Your task to perform on an android device: Show the shopping cart on amazon.com. Add "macbook pro" to the cart on amazon.com Image 0: 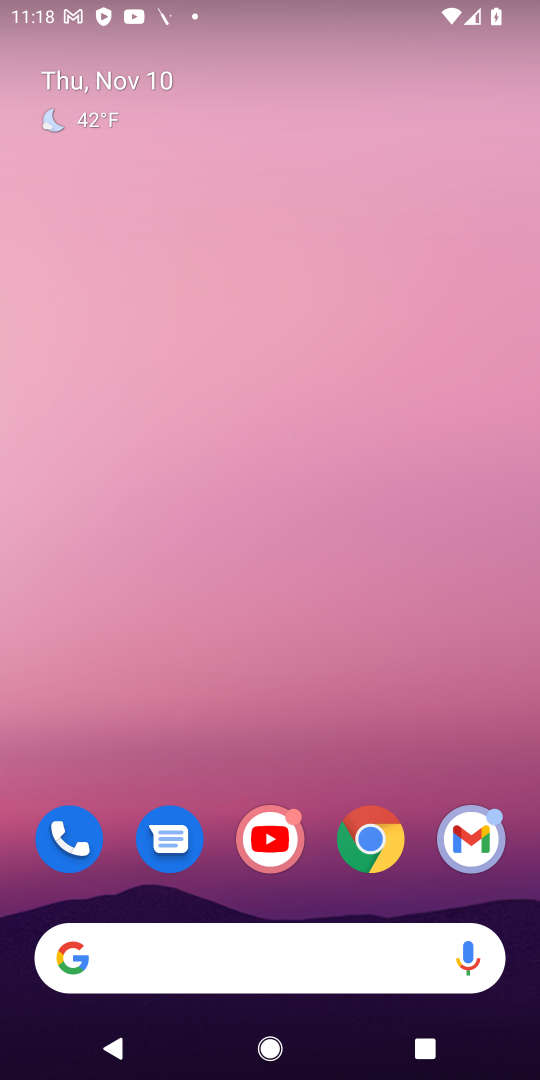
Step 0: click (373, 832)
Your task to perform on an android device: Show the shopping cart on amazon.com. Add "macbook pro" to the cart on amazon.com Image 1: 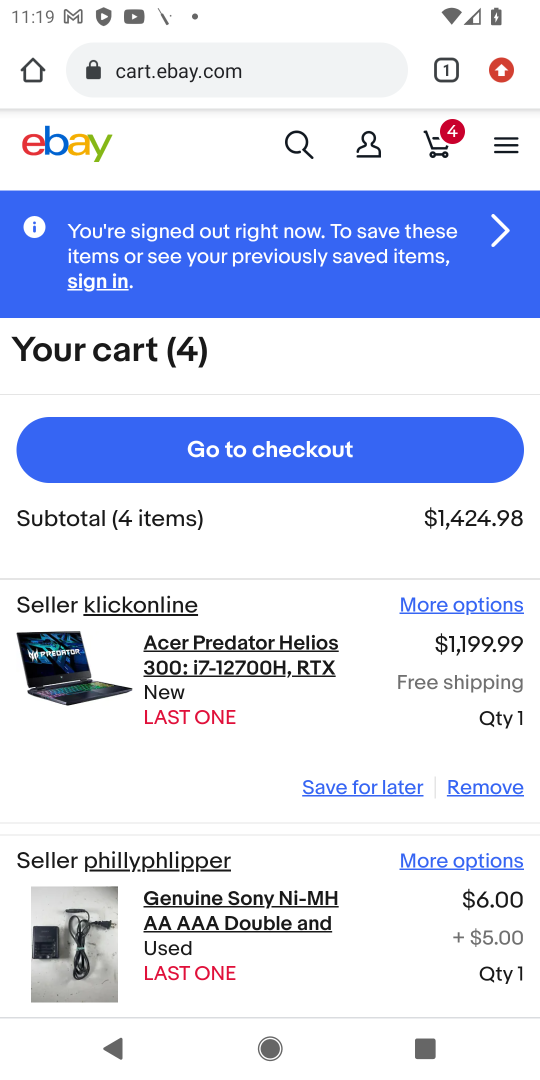
Step 1: click (360, 72)
Your task to perform on an android device: Show the shopping cart on amazon.com. Add "macbook pro" to the cart on amazon.com Image 2: 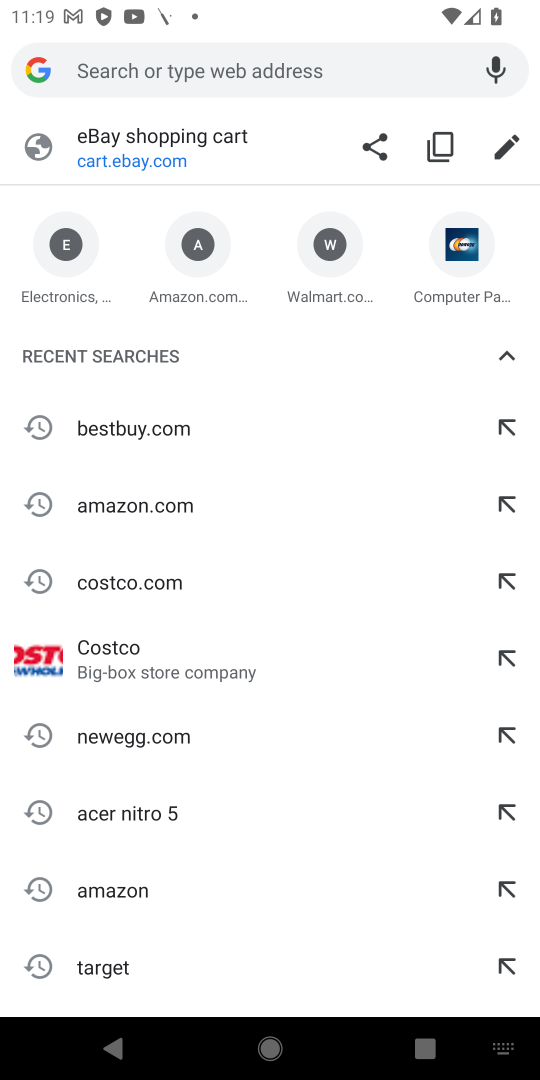
Step 2: click (147, 495)
Your task to perform on an android device: Show the shopping cart on amazon.com. Add "macbook pro" to the cart on amazon.com Image 3: 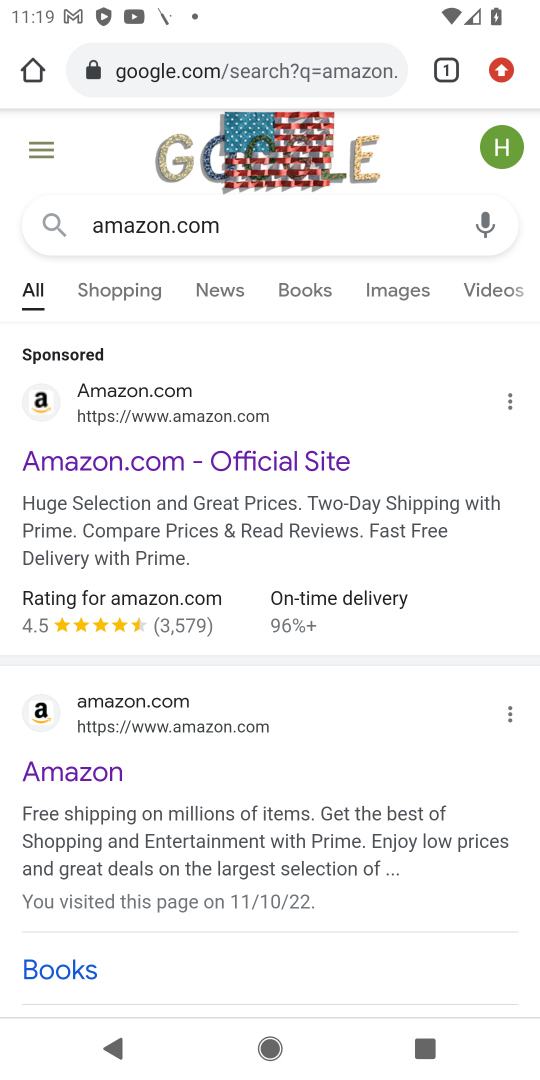
Step 3: click (186, 407)
Your task to perform on an android device: Show the shopping cart on amazon.com. Add "macbook pro" to the cart on amazon.com Image 4: 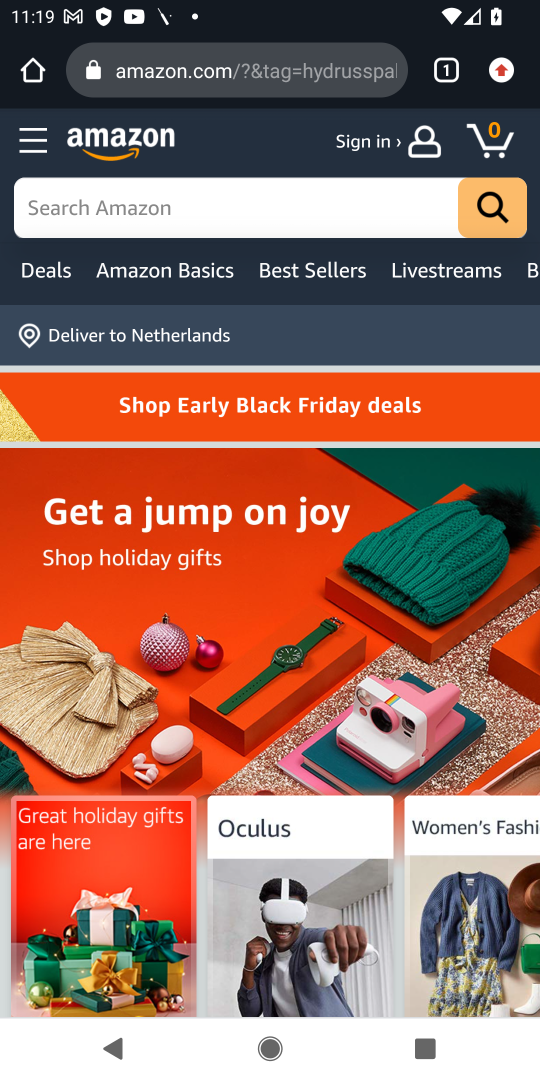
Step 4: click (282, 213)
Your task to perform on an android device: Show the shopping cart on amazon.com. Add "macbook pro" to the cart on amazon.com Image 5: 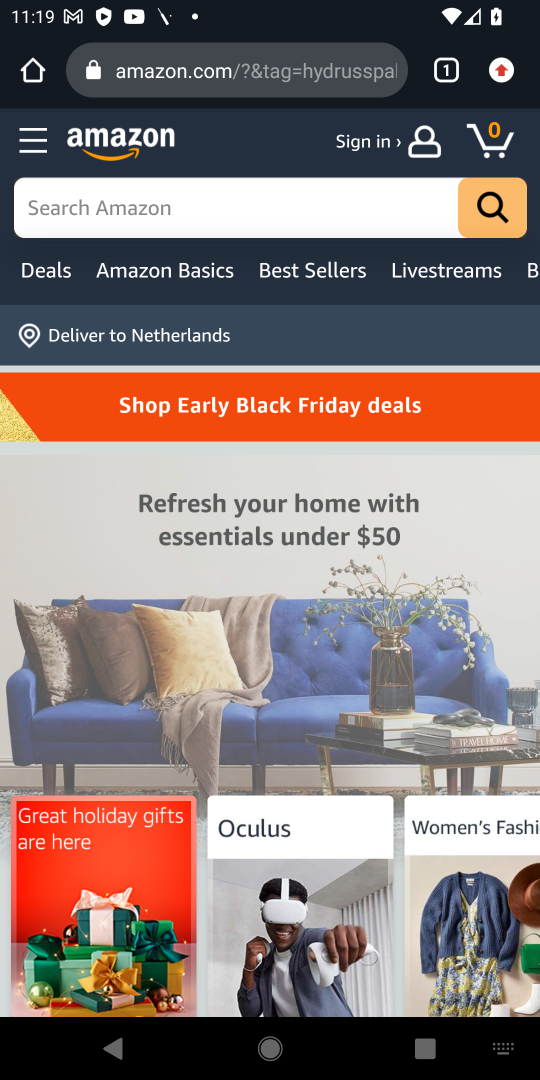
Step 5: press enter
Your task to perform on an android device: Show the shopping cart on amazon.com. Add "macbook pro" to the cart on amazon.com Image 6: 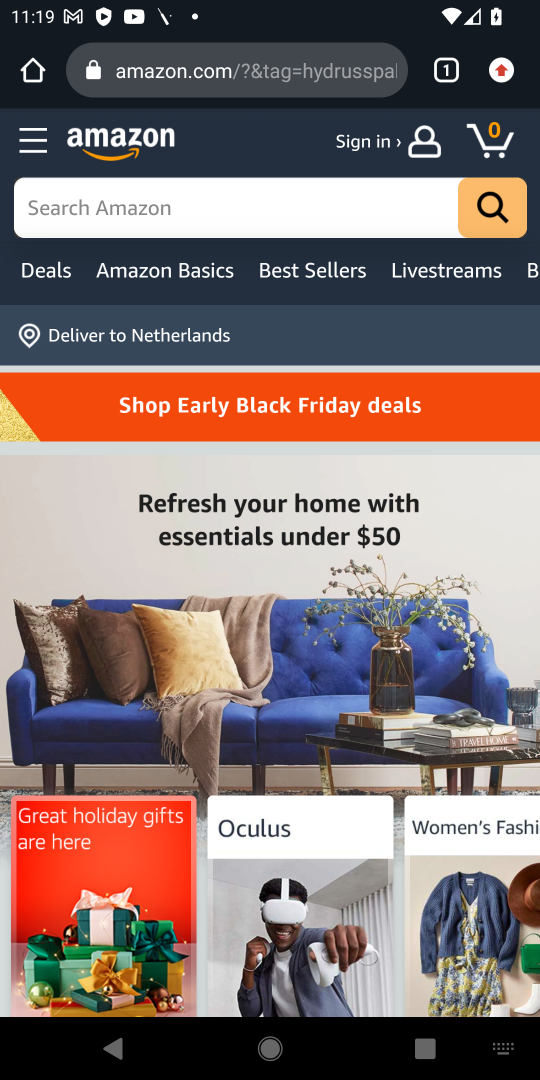
Step 6: type "macbook pro"
Your task to perform on an android device: Show the shopping cart on amazon.com. Add "macbook pro" to the cart on amazon.com Image 7: 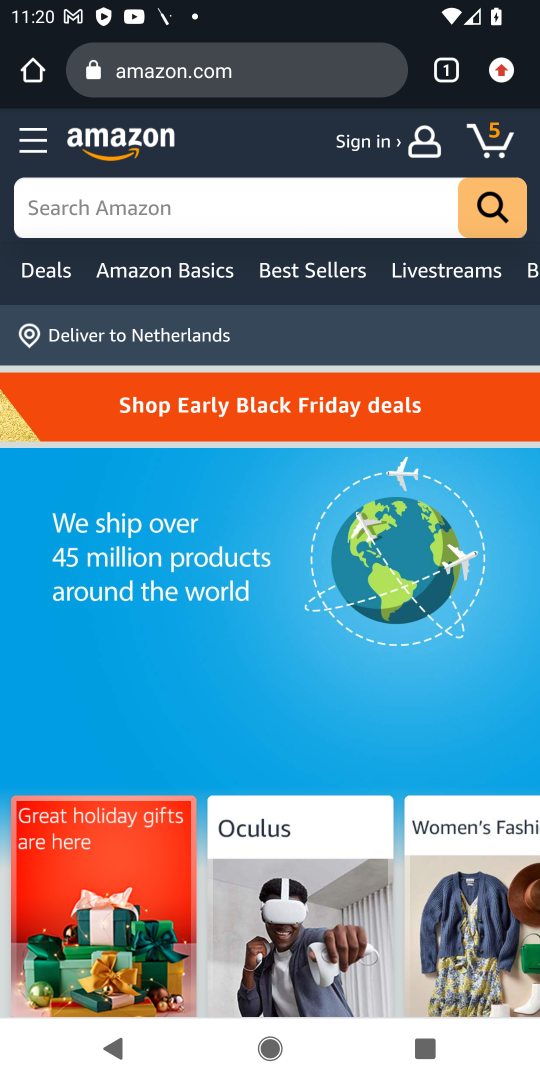
Step 7: click (287, 203)
Your task to perform on an android device: Show the shopping cart on amazon.com. Add "macbook pro" to the cart on amazon.com Image 8: 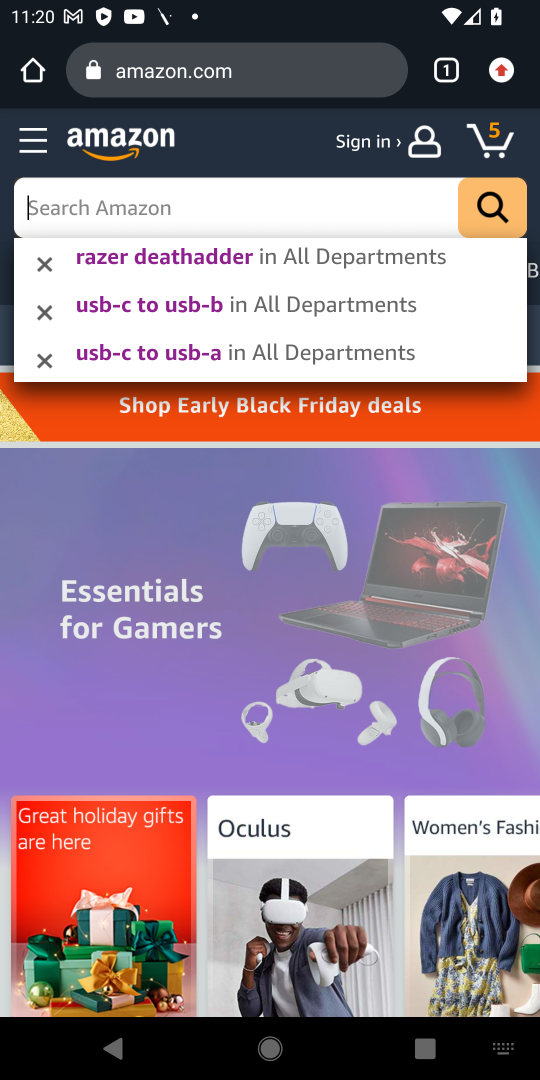
Step 8: type "macbook pro"
Your task to perform on an android device: Show the shopping cart on amazon.com. Add "macbook pro" to the cart on amazon.com Image 9: 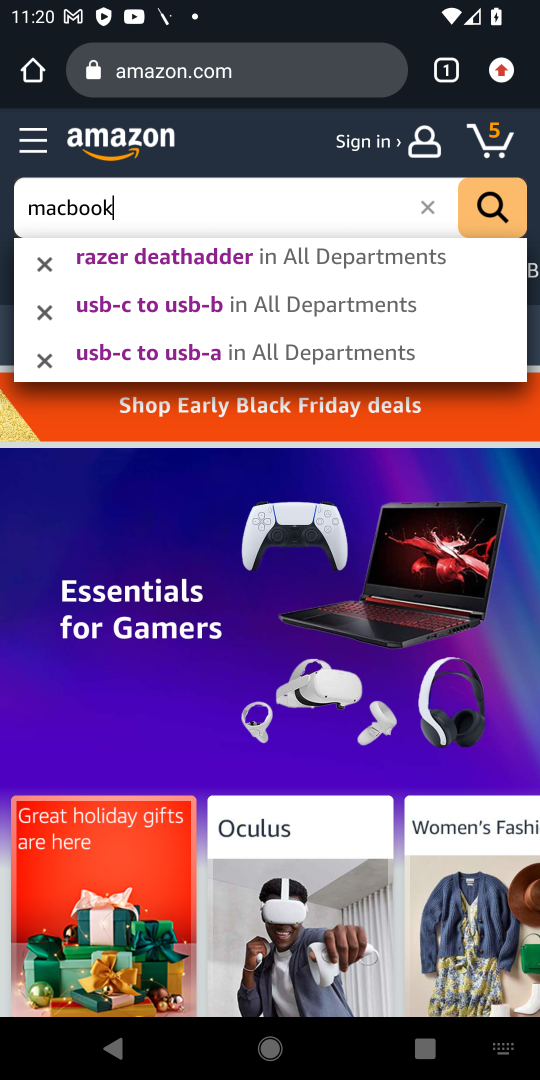
Step 9: press enter
Your task to perform on an android device: Show the shopping cart on amazon.com. Add "macbook pro" to the cart on amazon.com Image 10: 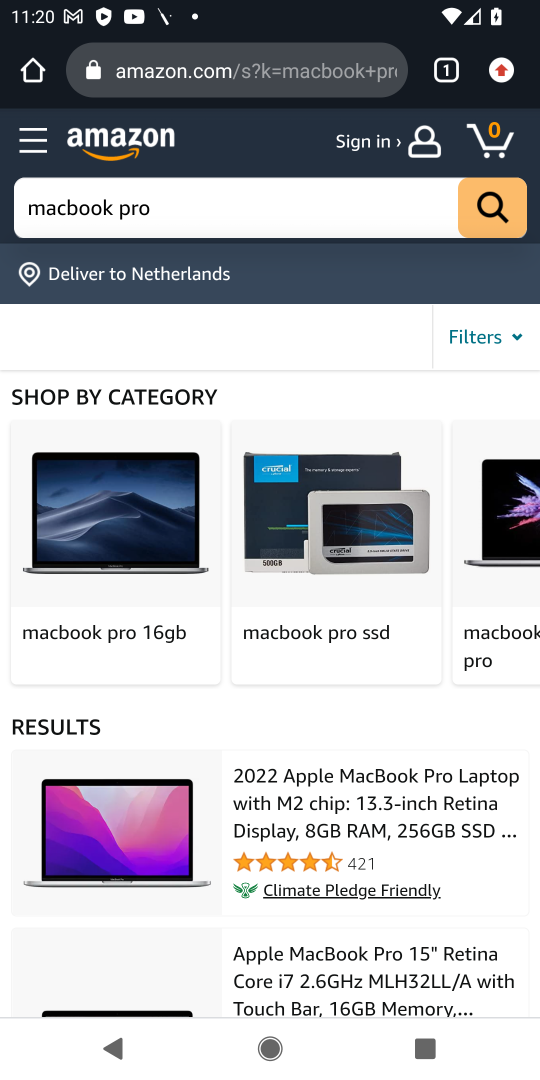
Step 10: drag from (433, 768) to (450, 683)
Your task to perform on an android device: Show the shopping cart on amazon.com. Add "macbook pro" to the cart on amazon.com Image 11: 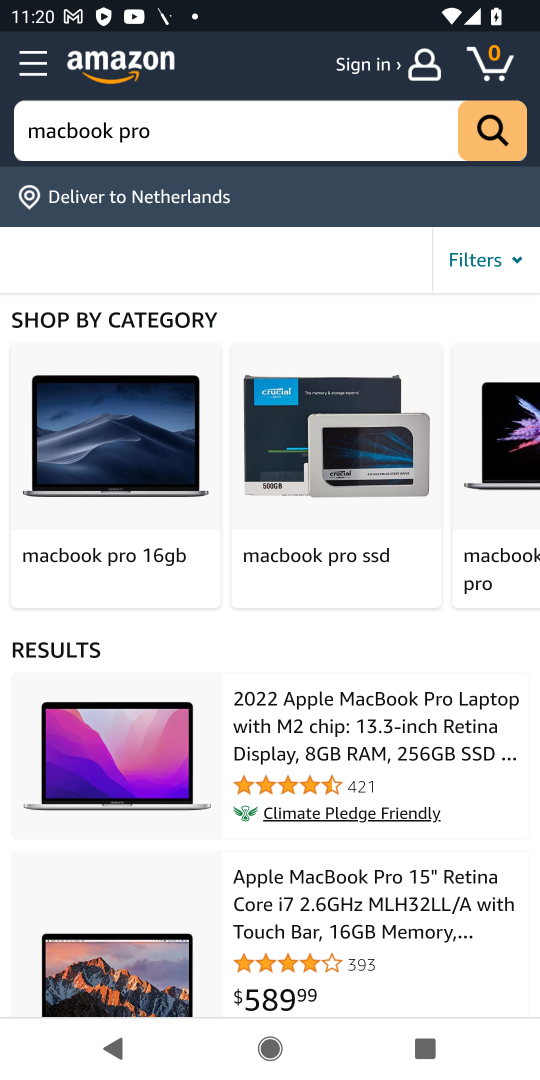
Step 11: click (134, 748)
Your task to perform on an android device: Show the shopping cart on amazon.com. Add "macbook pro" to the cart on amazon.com Image 12: 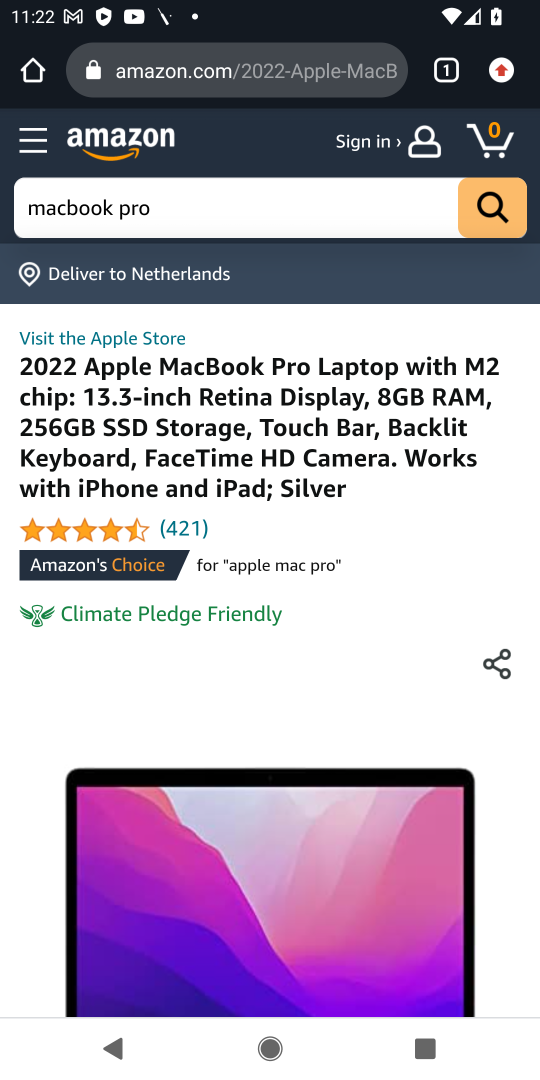
Step 12: drag from (462, 984) to (505, 312)
Your task to perform on an android device: Show the shopping cart on amazon.com. Add "macbook pro" to the cart on amazon.com Image 13: 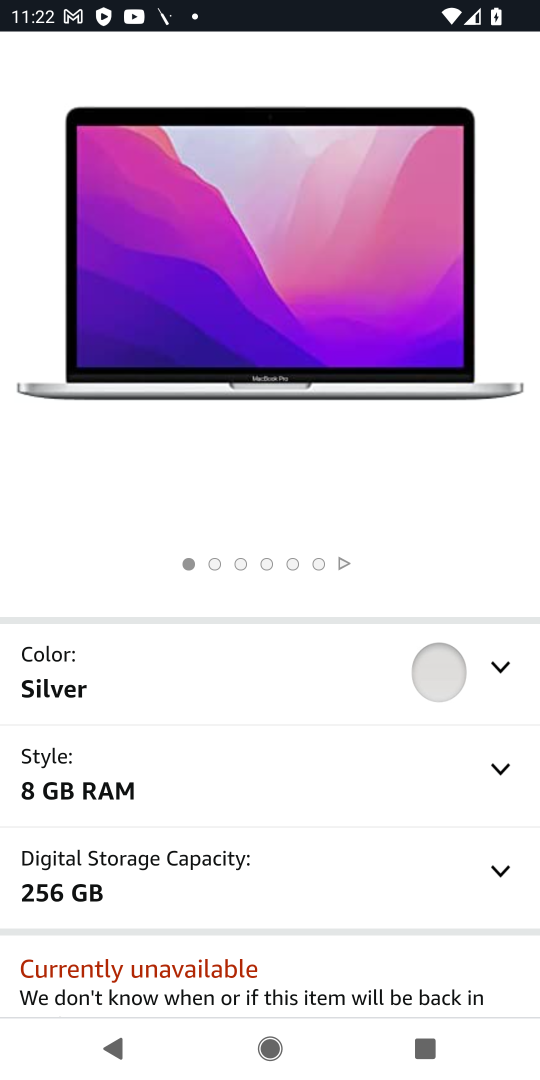
Step 13: drag from (416, 869) to (420, 718)
Your task to perform on an android device: Show the shopping cart on amazon.com. Add "macbook pro" to the cart on amazon.com Image 14: 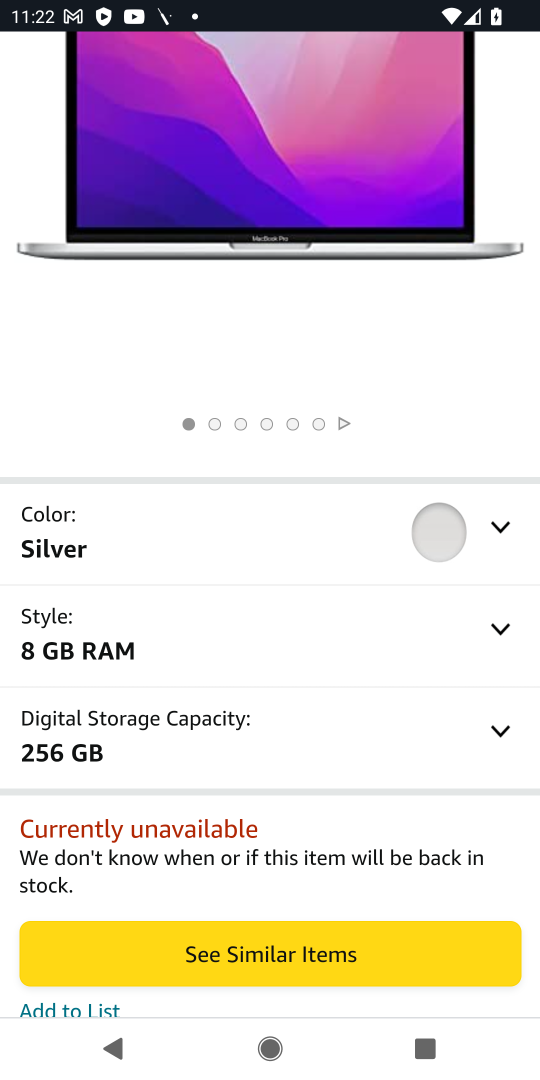
Step 14: press back button
Your task to perform on an android device: Show the shopping cart on amazon.com. Add "macbook pro" to the cart on amazon.com Image 15: 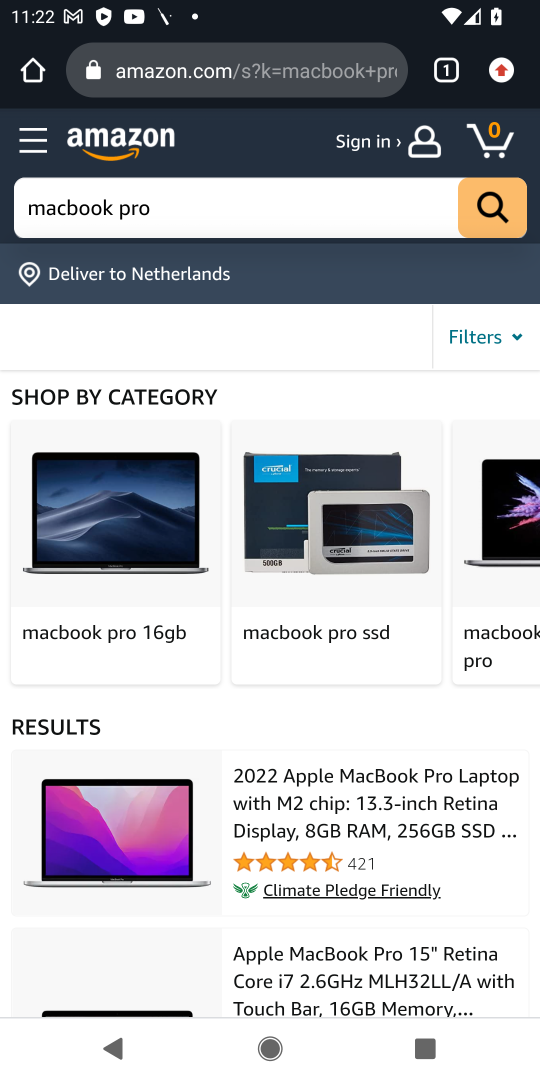
Step 15: drag from (474, 663) to (478, 503)
Your task to perform on an android device: Show the shopping cart on amazon.com. Add "macbook pro" to the cart on amazon.com Image 16: 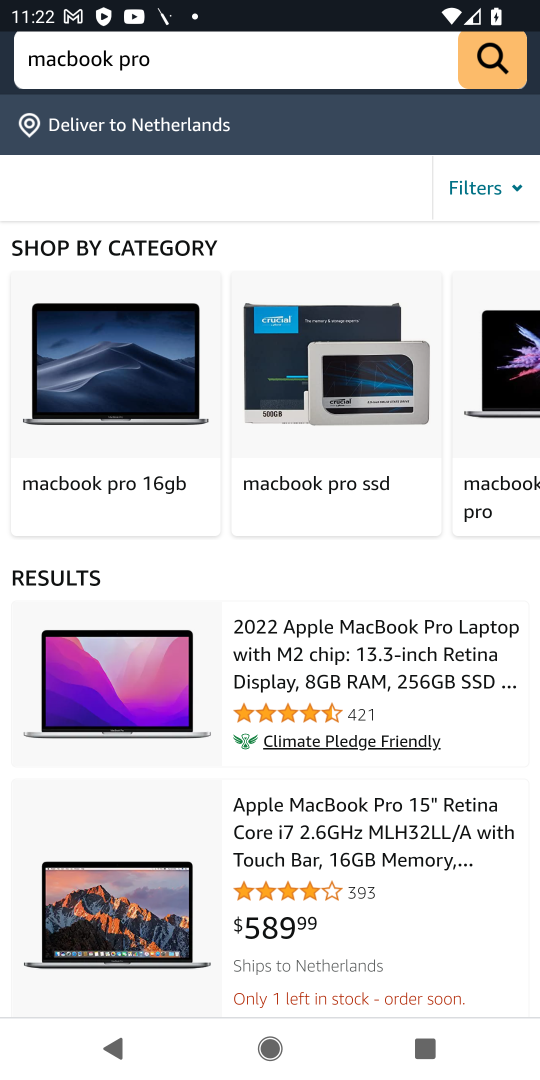
Step 16: click (130, 882)
Your task to perform on an android device: Show the shopping cart on amazon.com. Add "macbook pro" to the cart on amazon.com Image 17: 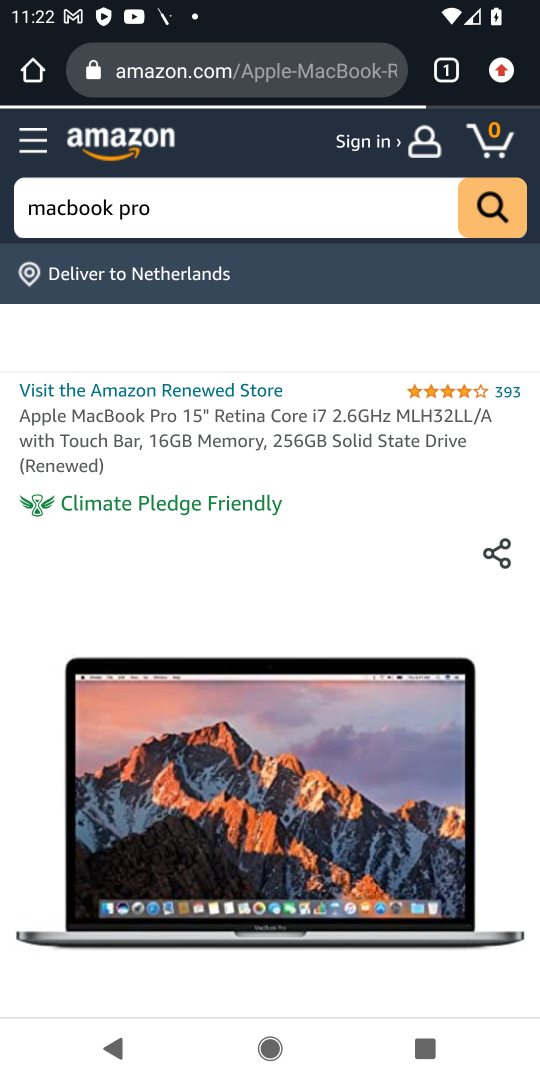
Step 17: drag from (504, 685) to (527, 343)
Your task to perform on an android device: Show the shopping cart on amazon.com. Add "macbook pro" to the cart on amazon.com Image 18: 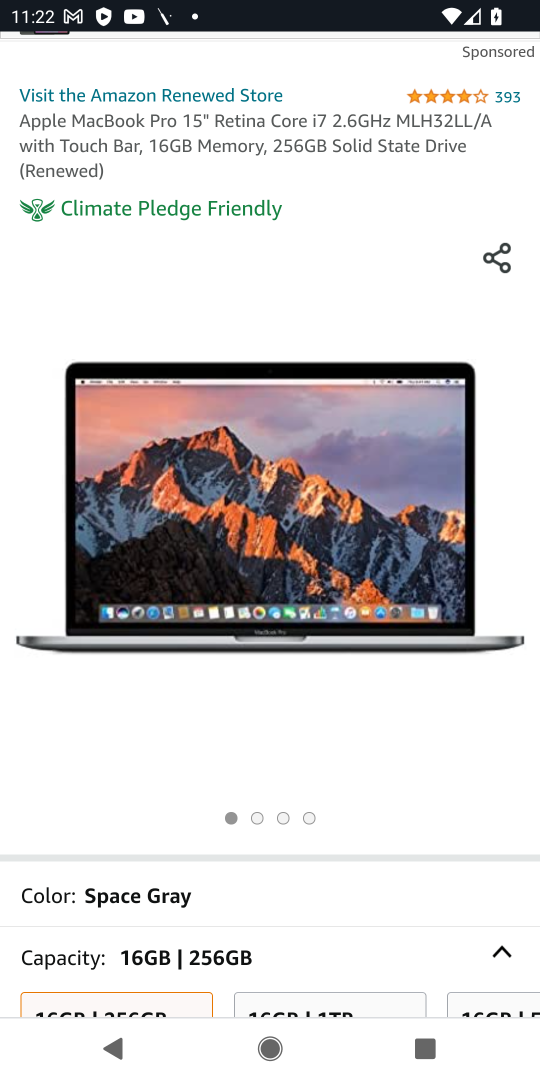
Step 18: drag from (464, 902) to (491, 430)
Your task to perform on an android device: Show the shopping cart on amazon.com. Add "macbook pro" to the cart on amazon.com Image 19: 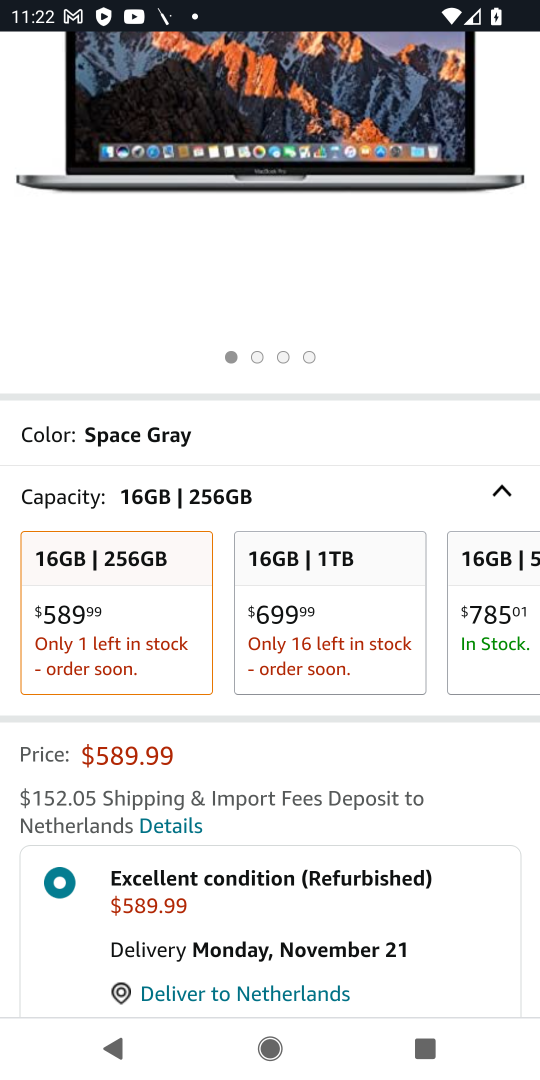
Step 19: drag from (472, 906) to (507, 369)
Your task to perform on an android device: Show the shopping cart on amazon.com. Add "macbook pro" to the cart on amazon.com Image 20: 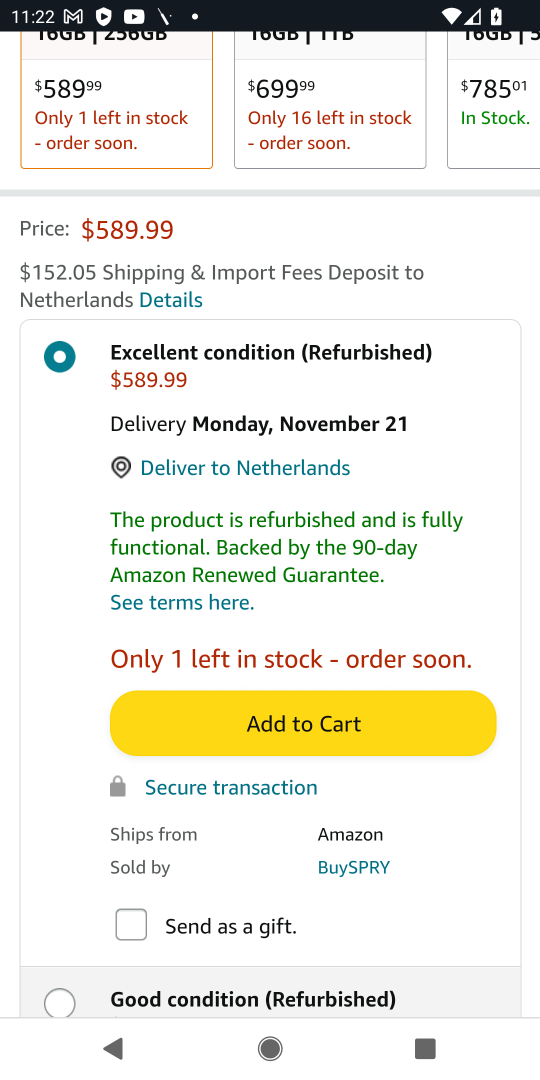
Step 20: click (361, 707)
Your task to perform on an android device: Show the shopping cart on amazon.com. Add "macbook pro" to the cart on amazon.com Image 21: 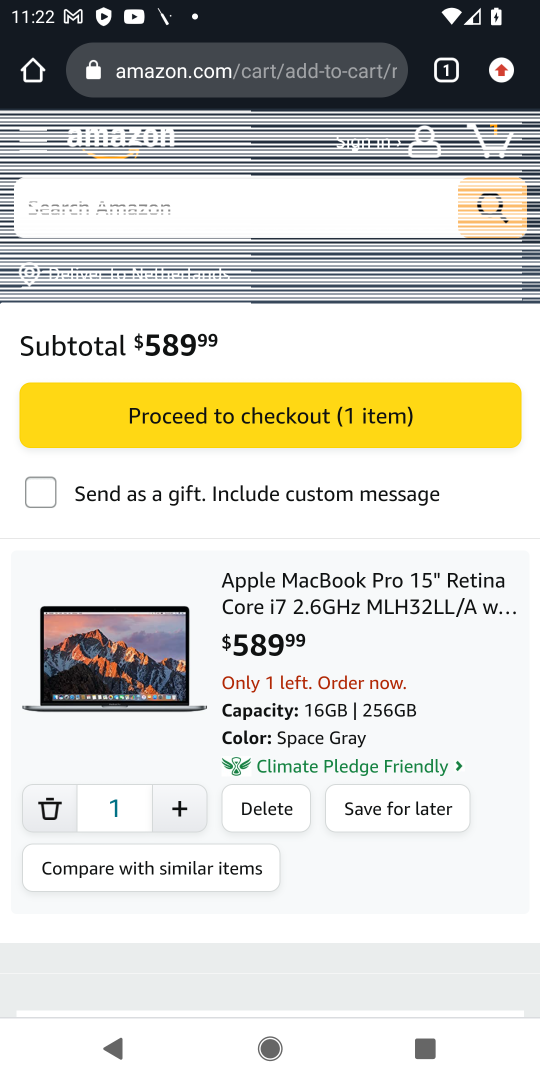
Step 21: task complete